Your task to perform on an android device: add a contact Image 0: 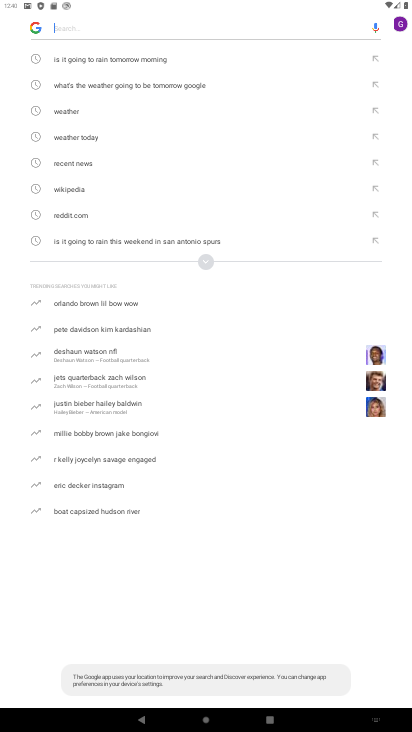
Step 0: press home button
Your task to perform on an android device: add a contact Image 1: 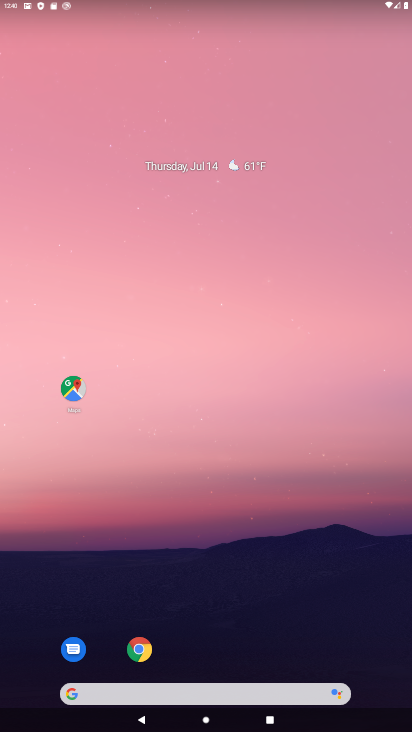
Step 1: drag from (207, 677) to (258, 276)
Your task to perform on an android device: add a contact Image 2: 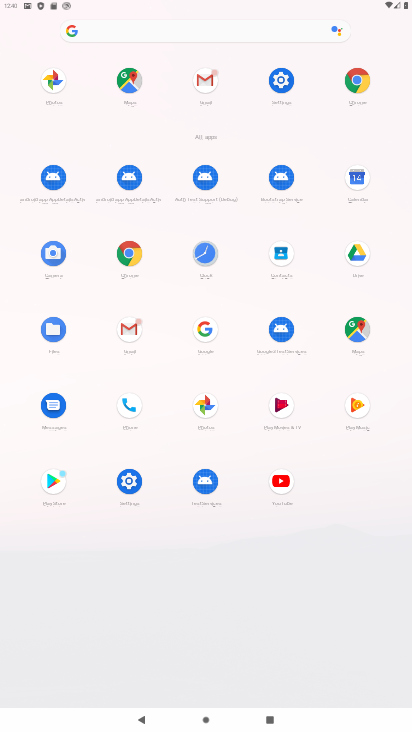
Step 2: click (275, 257)
Your task to perform on an android device: add a contact Image 3: 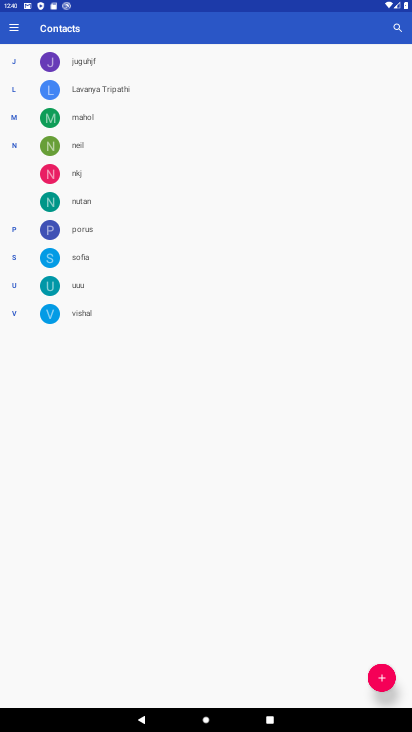
Step 3: click (385, 676)
Your task to perform on an android device: add a contact Image 4: 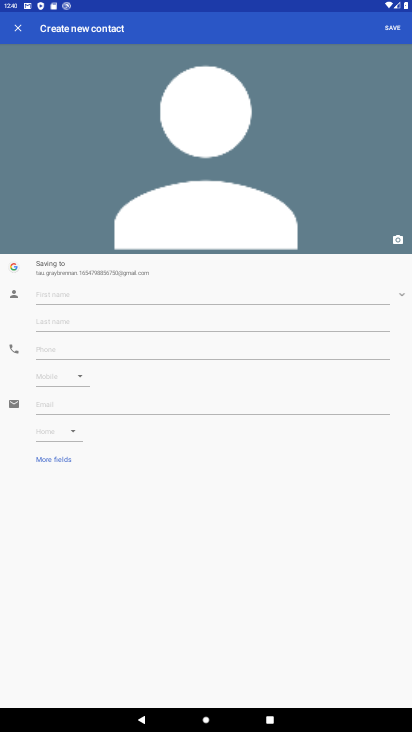
Step 4: click (196, 295)
Your task to perform on an android device: add a contact Image 5: 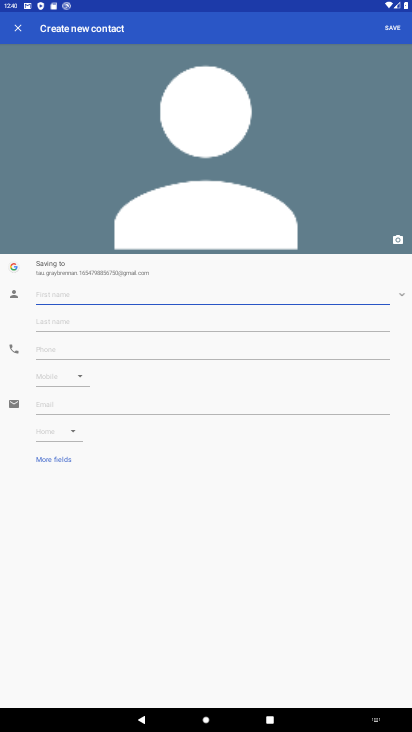
Step 5: type "jjjjj"
Your task to perform on an android device: add a contact Image 6: 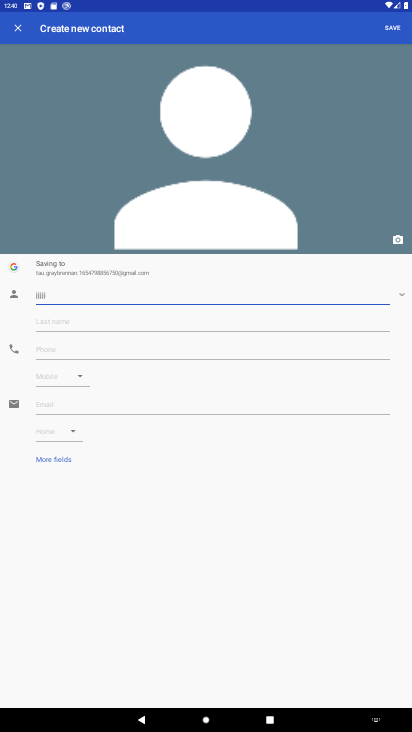
Step 6: click (59, 346)
Your task to perform on an android device: add a contact Image 7: 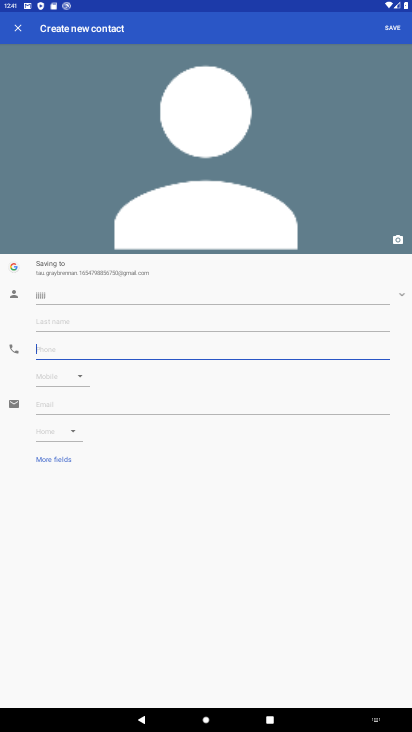
Step 7: type "87788877"
Your task to perform on an android device: add a contact Image 8: 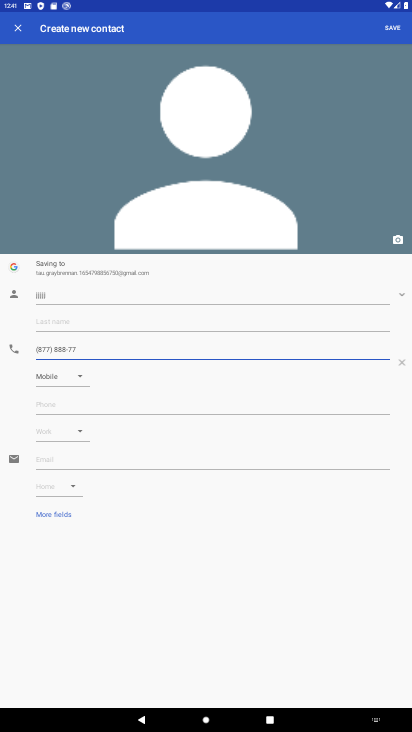
Step 8: click (396, 30)
Your task to perform on an android device: add a contact Image 9: 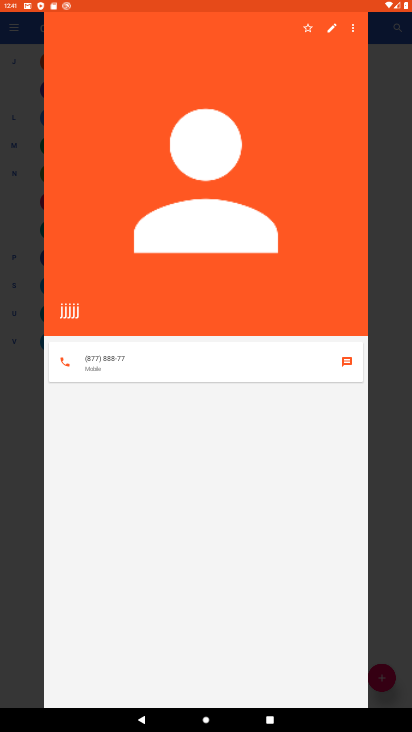
Step 9: task complete